Your task to perform on an android device: empty trash in google photos Image 0: 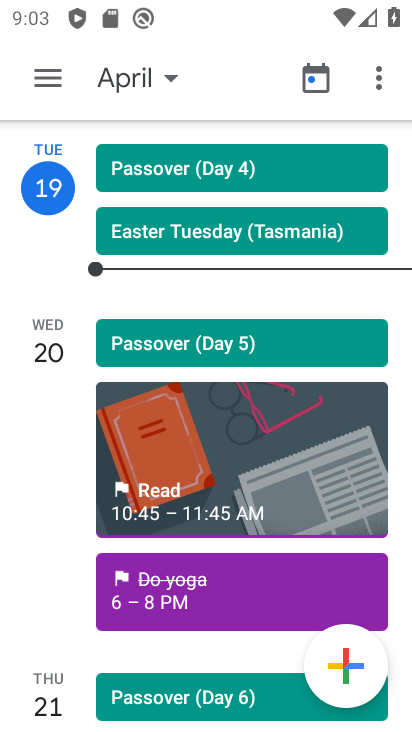
Step 0: press home button
Your task to perform on an android device: empty trash in google photos Image 1: 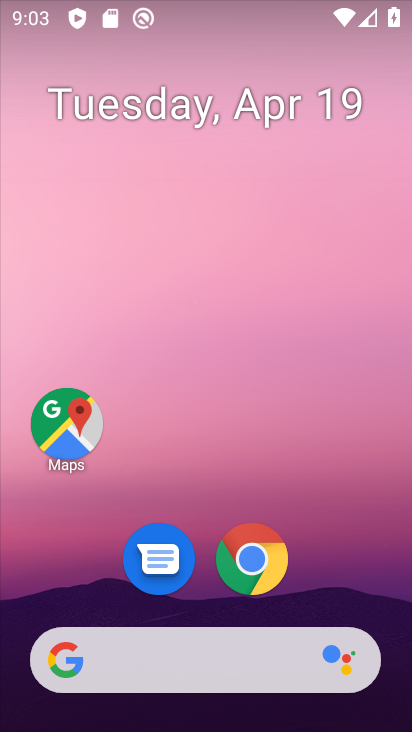
Step 1: click (352, 179)
Your task to perform on an android device: empty trash in google photos Image 2: 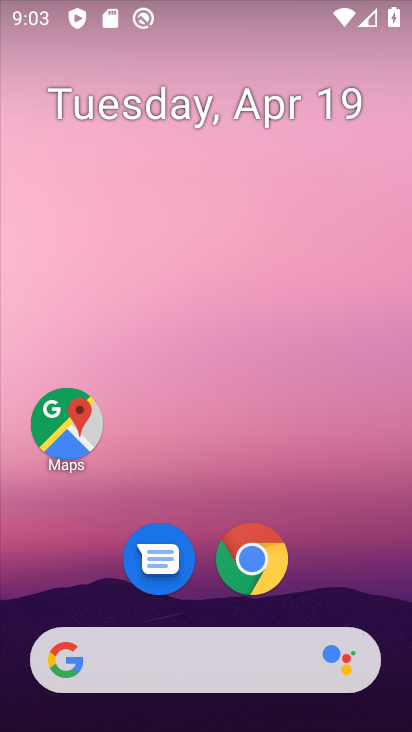
Step 2: drag from (389, 587) to (351, 220)
Your task to perform on an android device: empty trash in google photos Image 3: 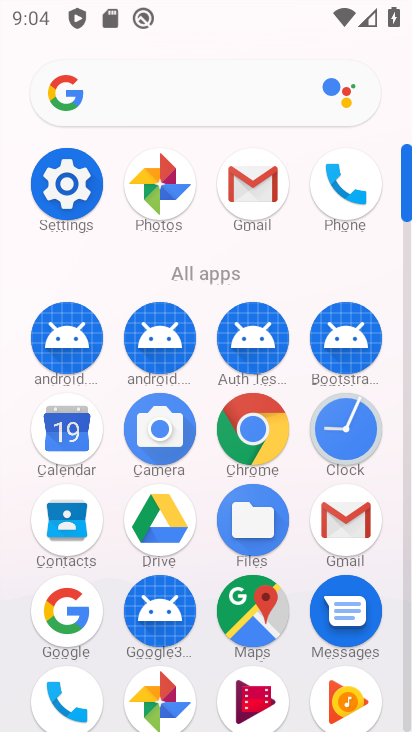
Step 3: click (169, 684)
Your task to perform on an android device: empty trash in google photos Image 4: 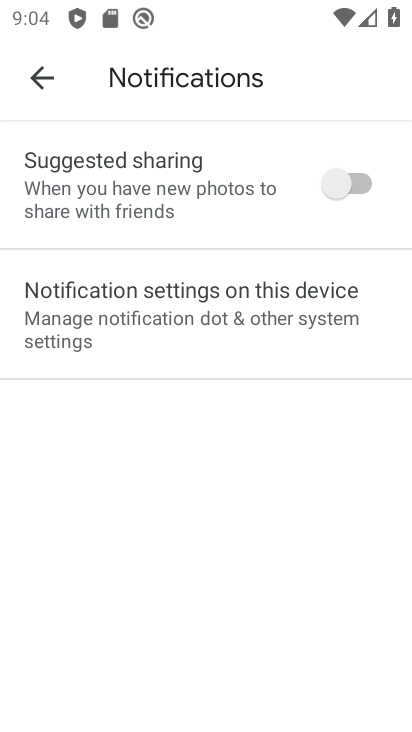
Step 4: press home button
Your task to perform on an android device: empty trash in google photos Image 5: 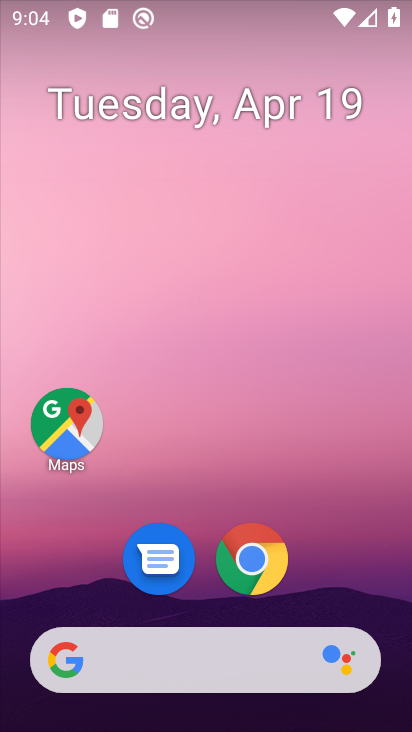
Step 5: drag from (309, 180) to (296, 140)
Your task to perform on an android device: empty trash in google photos Image 6: 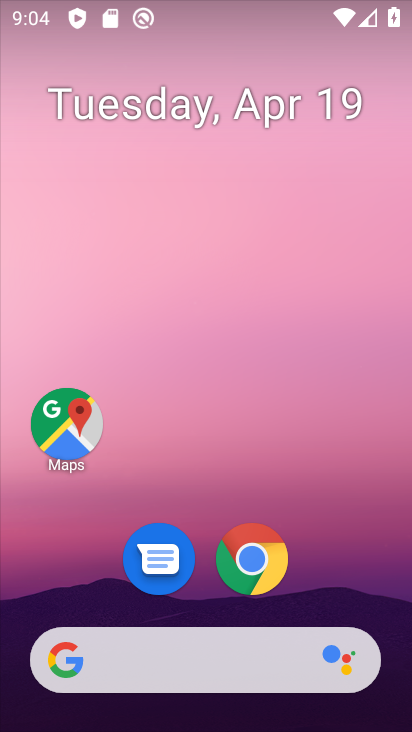
Step 6: drag from (353, 401) to (312, 95)
Your task to perform on an android device: empty trash in google photos Image 7: 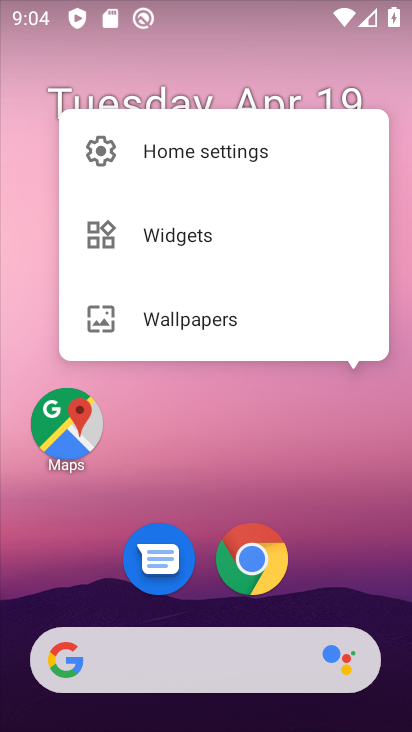
Step 7: press back button
Your task to perform on an android device: empty trash in google photos Image 8: 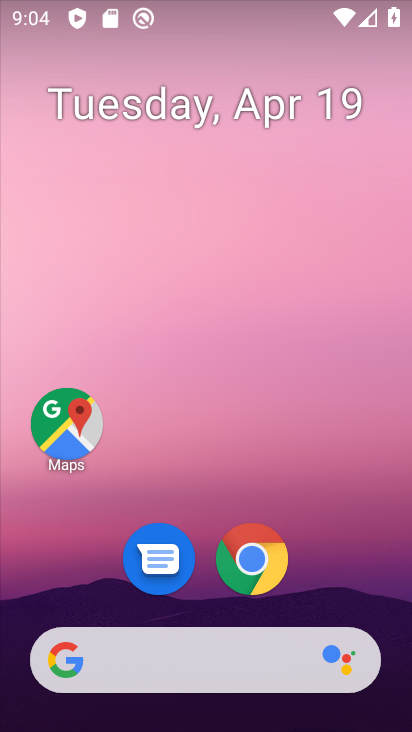
Step 8: drag from (356, 179) to (346, 86)
Your task to perform on an android device: empty trash in google photos Image 9: 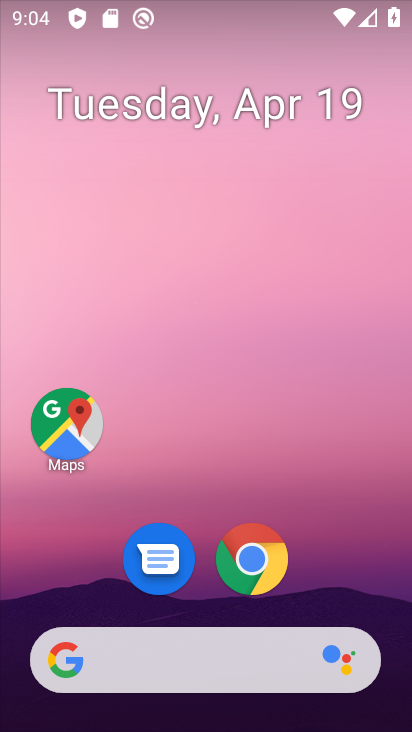
Step 9: drag from (364, 589) to (290, 96)
Your task to perform on an android device: empty trash in google photos Image 10: 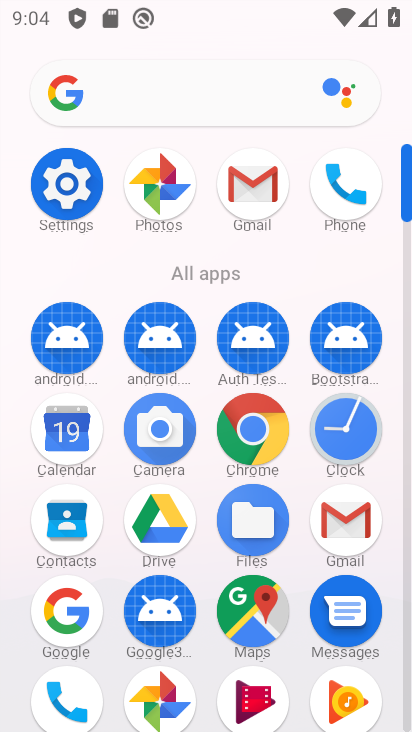
Step 10: click (150, 690)
Your task to perform on an android device: empty trash in google photos Image 11: 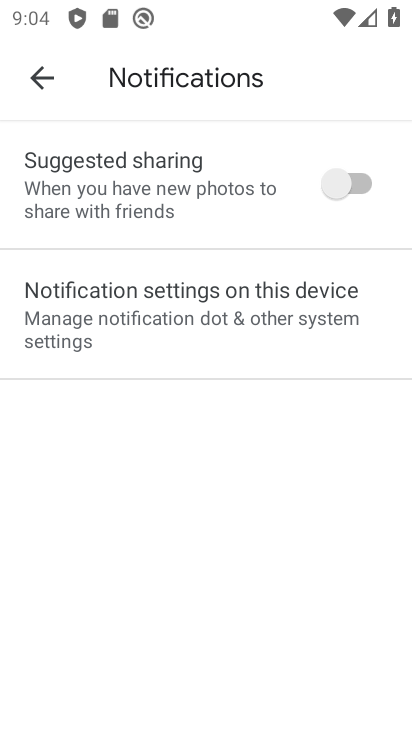
Step 11: click (36, 71)
Your task to perform on an android device: empty trash in google photos Image 12: 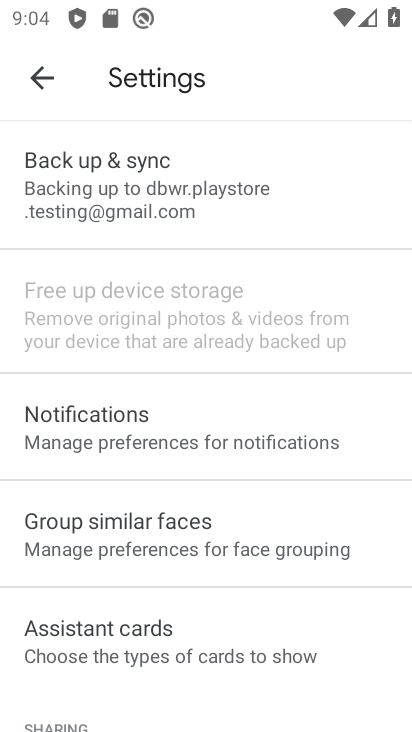
Step 12: click (37, 74)
Your task to perform on an android device: empty trash in google photos Image 13: 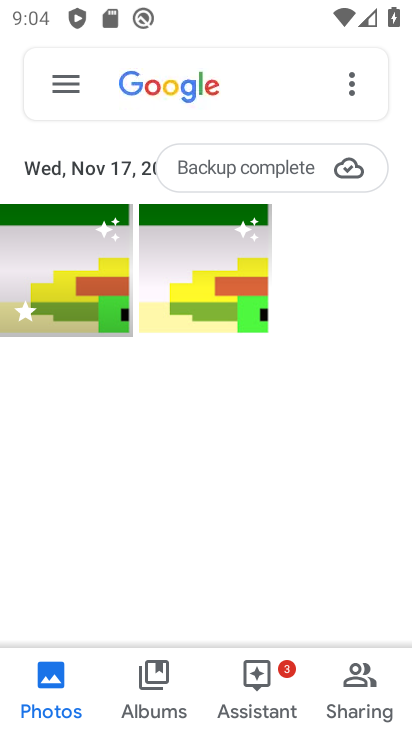
Step 13: click (62, 82)
Your task to perform on an android device: empty trash in google photos Image 14: 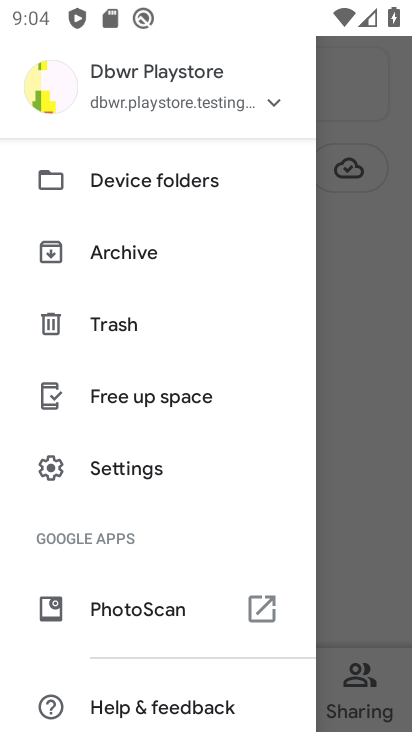
Step 14: click (106, 315)
Your task to perform on an android device: empty trash in google photos Image 15: 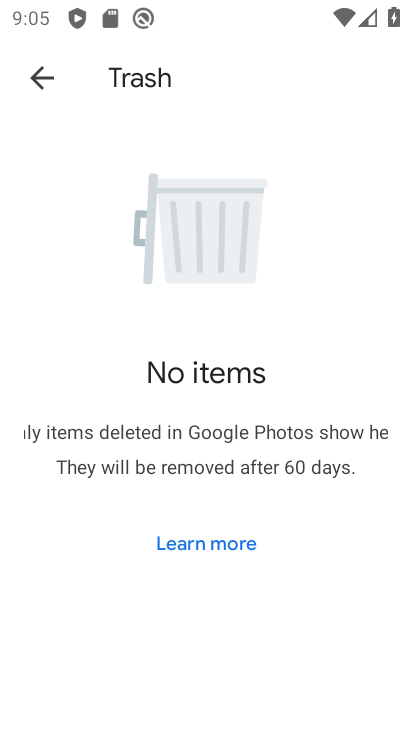
Step 15: task complete